Your task to perform on an android device: Go to Reddit.com Image 0: 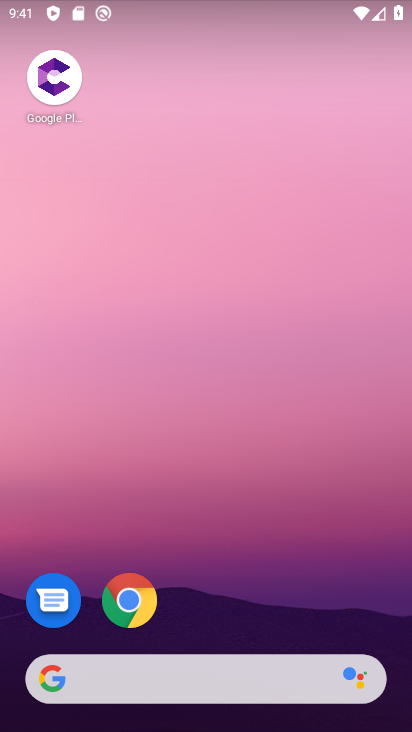
Step 0: drag from (312, 616) to (272, 117)
Your task to perform on an android device: Go to Reddit.com Image 1: 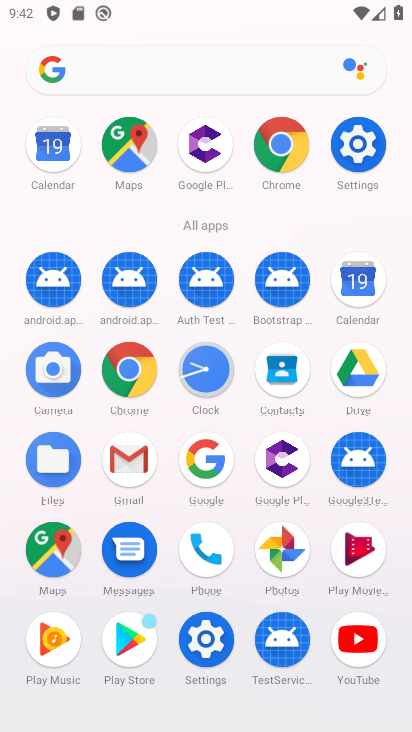
Step 1: click (137, 381)
Your task to perform on an android device: Go to Reddit.com Image 2: 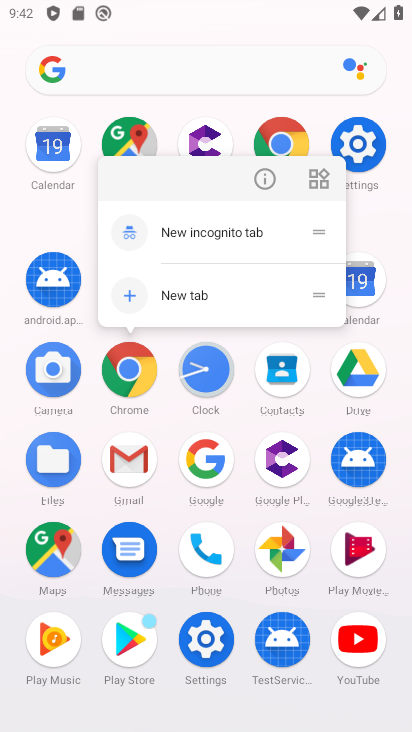
Step 2: click (137, 381)
Your task to perform on an android device: Go to Reddit.com Image 3: 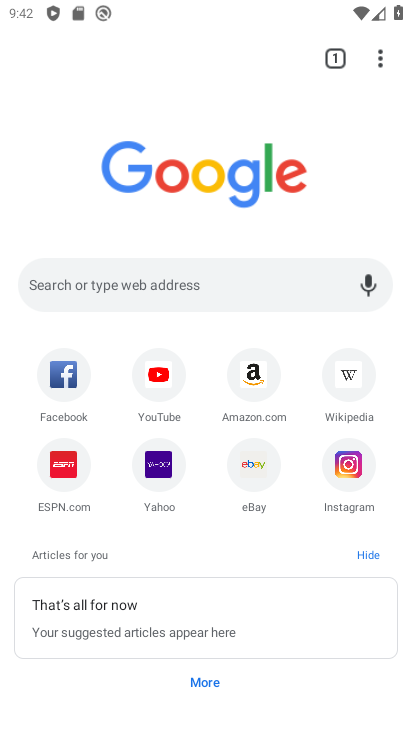
Step 3: click (222, 273)
Your task to perform on an android device: Go to Reddit.com Image 4: 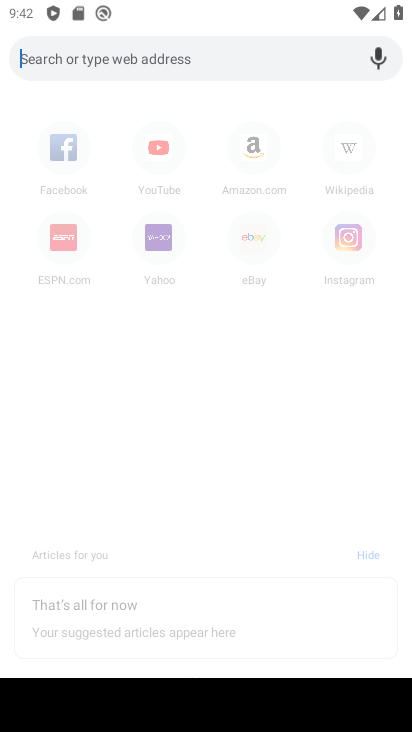
Step 4: type "reddit.com"
Your task to perform on an android device: Go to Reddit.com Image 5: 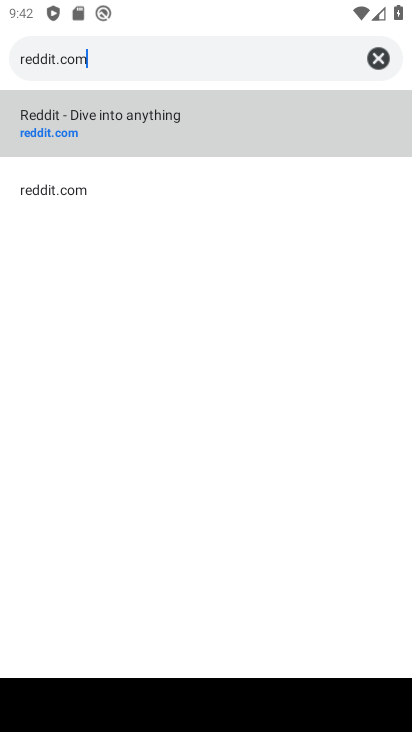
Step 5: click (193, 123)
Your task to perform on an android device: Go to Reddit.com Image 6: 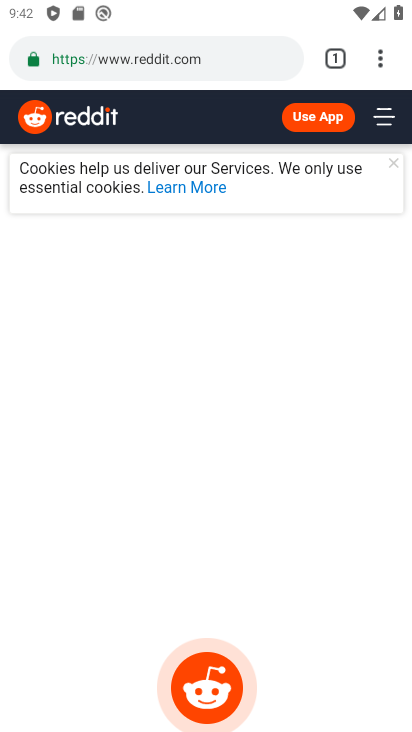
Step 6: task complete